Your task to perform on an android device: check battery use Image 0: 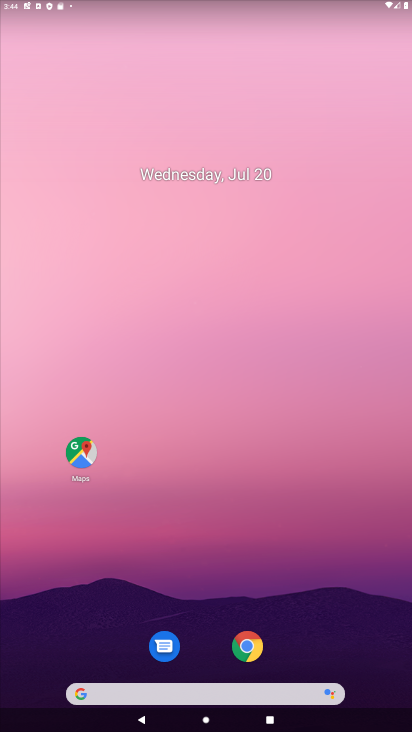
Step 0: drag from (219, 593) to (225, 173)
Your task to perform on an android device: check battery use Image 1: 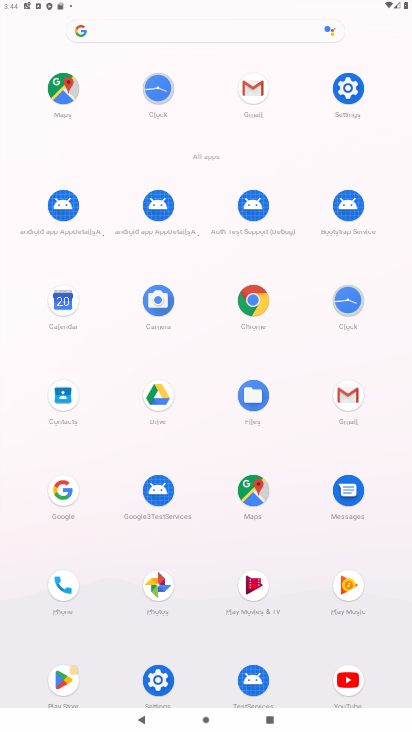
Step 1: click (350, 101)
Your task to perform on an android device: check battery use Image 2: 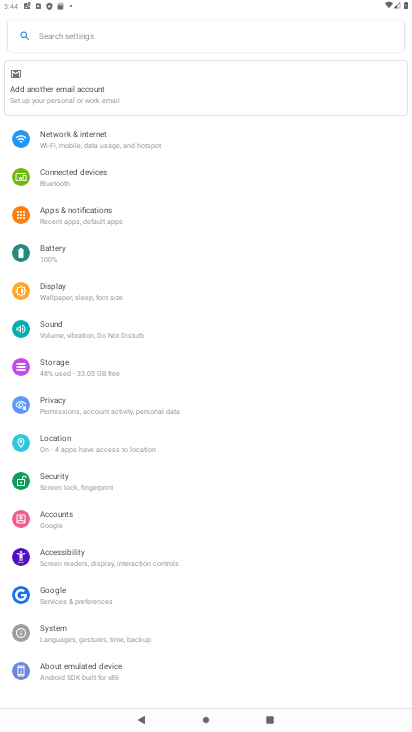
Step 2: click (73, 256)
Your task to perform on an android device: check battery use Image 3: 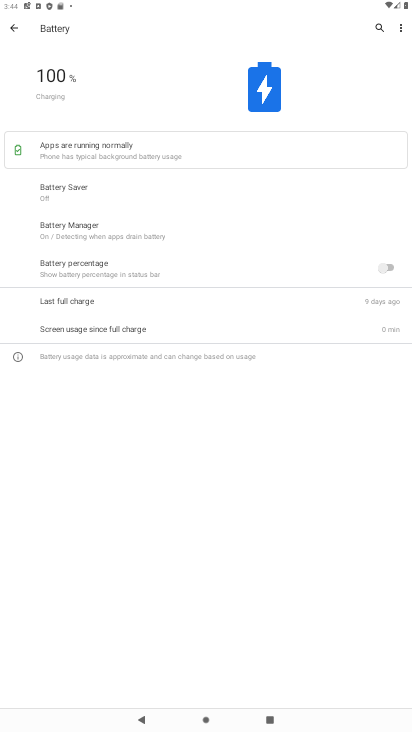
Step 3: click (401, 29)
Your task to perform on an android device: check battery use Image 4: 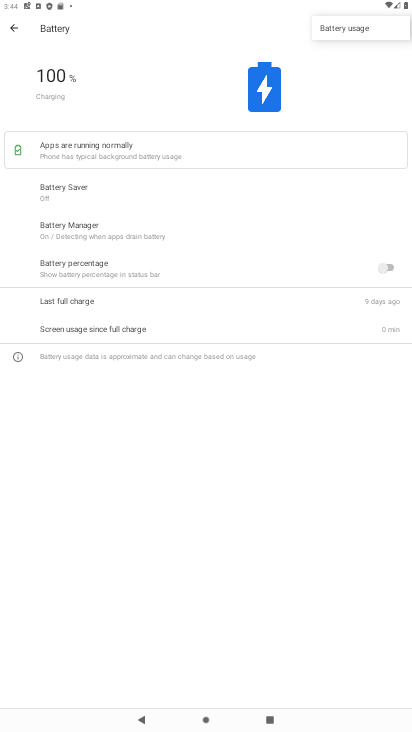
Step 4: click (377, 29)
Your task to perform on an android device: check battery use Image 5: 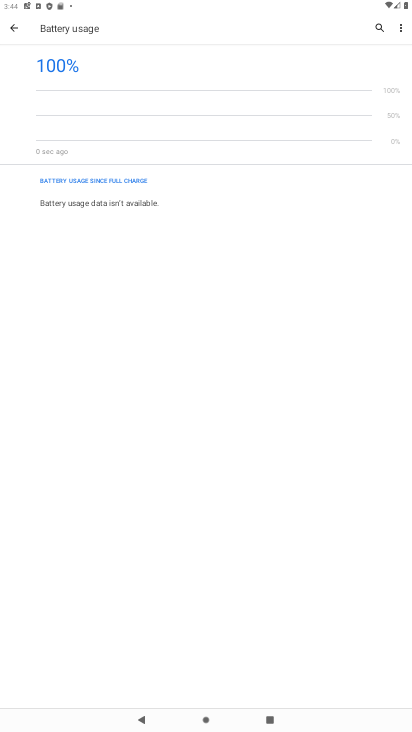
Step 5: task complete